Your task to perform on an android device: Open settings on Google Maps Image 0: 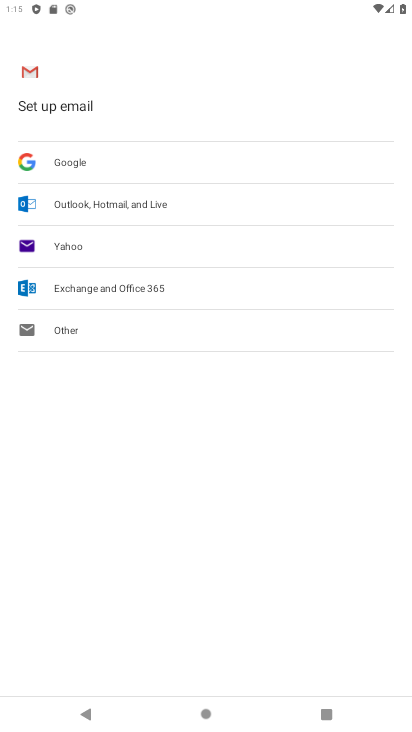
Step 0: press home button
Your task to perform on an android device: Open settings on Google Maps Image 1: 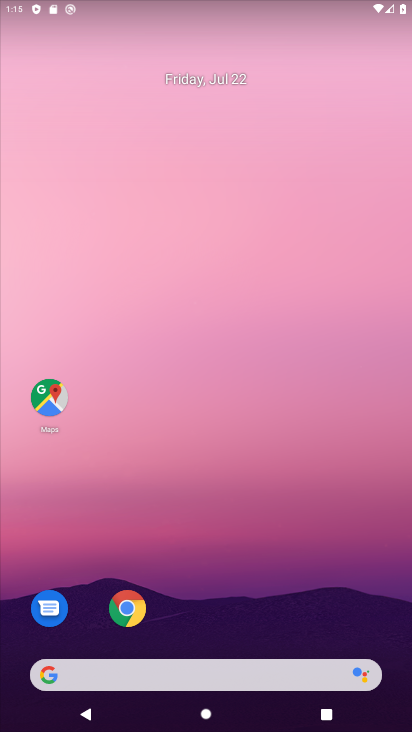
Step 1: drag from (403, 706) to (331, 111)
Your task to perform on an android device: Open settings on Google Maps Image 2: 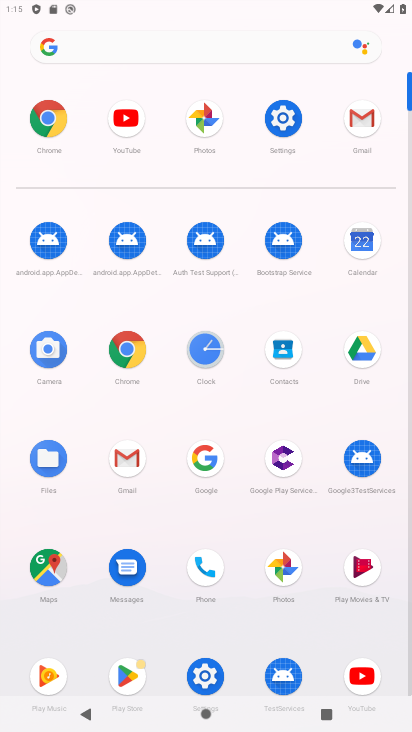
Step 2: click (209, 459)
Your task to perform on an android device: Open settings on Google Maps Image 3: 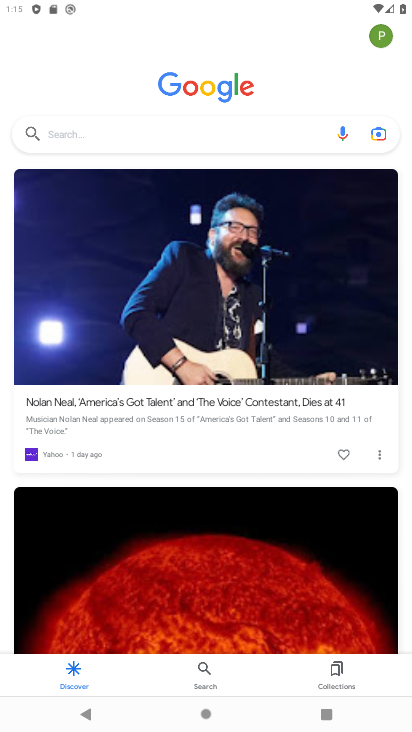
Step 3: task complete